Your task to perform on an android device: Do I have any events today? Image 0: 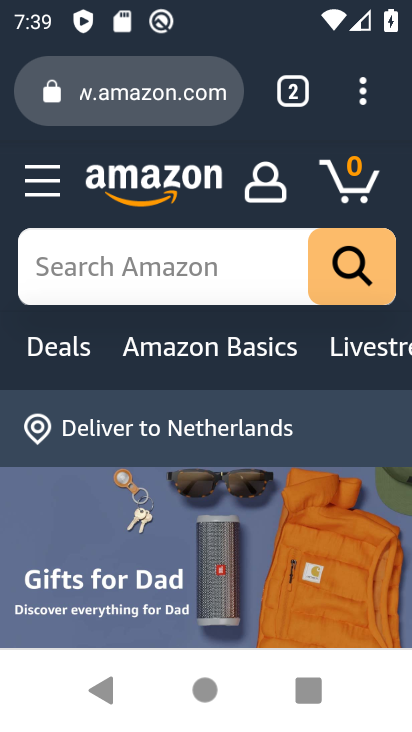
Step 0: press home button
Your task to perform on an android device: Do I have any events today? Image 1: 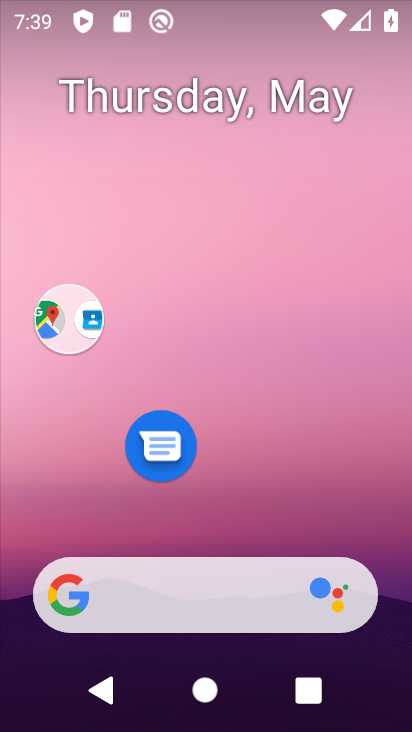
Step 1: drag from (267, 643) to (192, 199)
Your task to perform on an android device: Do I have any events today? Image 2: 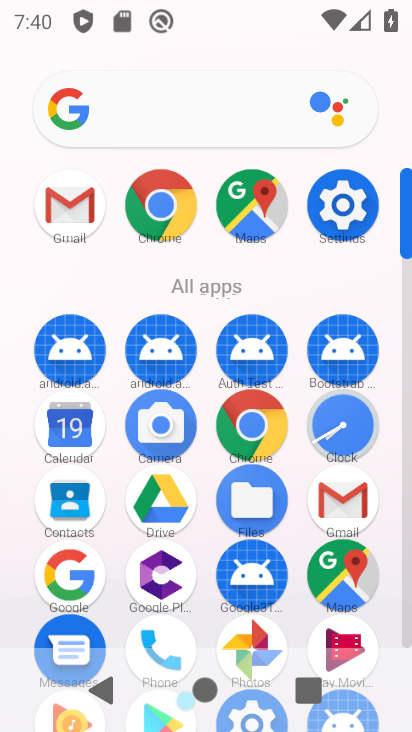
Step 2: click (51, 425)
Your task to perform on an android device: Do I have any events today? Image 3: 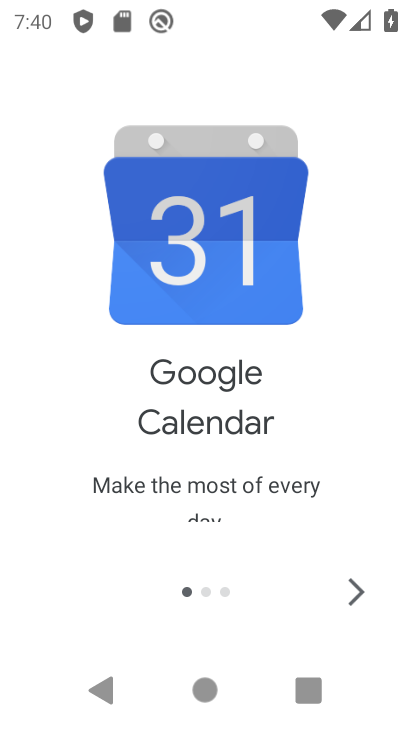
Step 3: click (338, 562)
Your task to perform on an android device: Do I have any events today? Image 4: 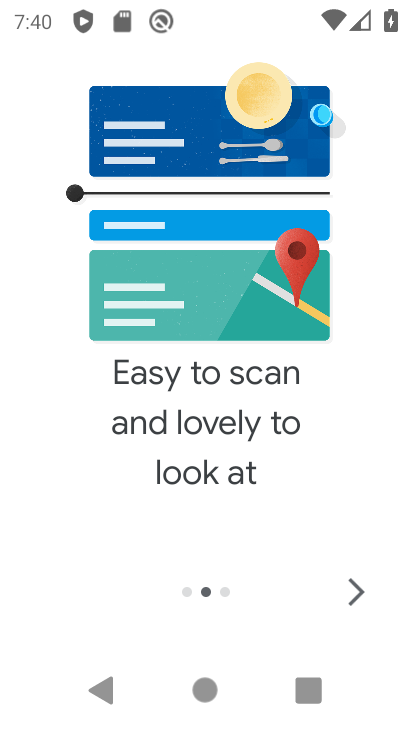
Step 4: click (354, 604)
Your task to perform on an android device: Do I have any events today? Image 5: 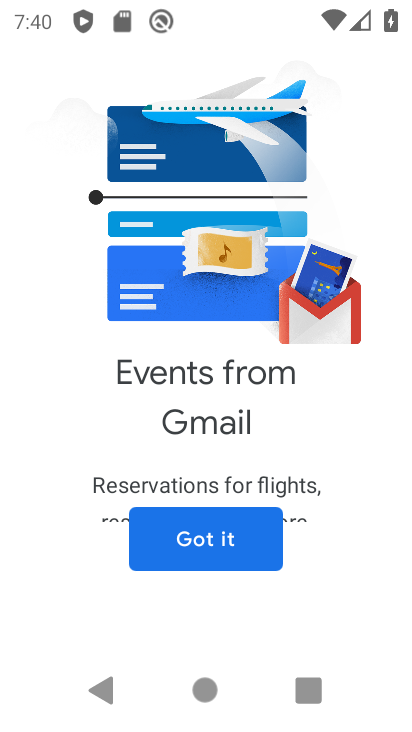
Step 5: click (216, 532)
Your task to perform on an android device: Do I have any events today? Image 6: 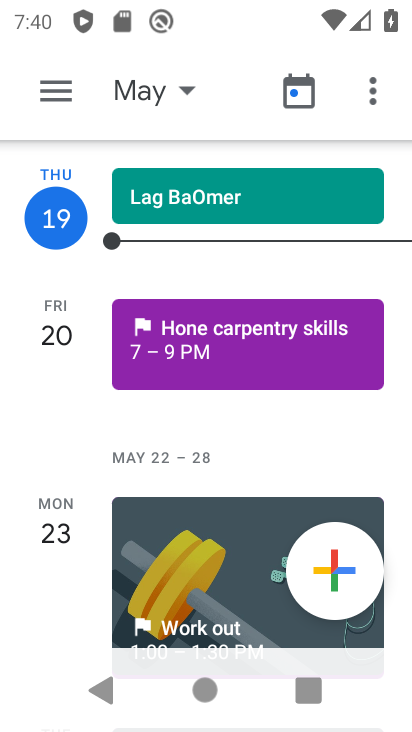
Step 6: task complete